Your task to perform on an android device: turn notification dots off Image 0: 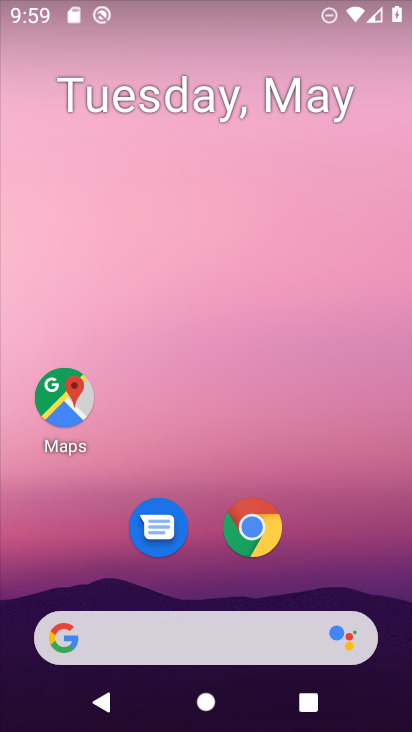
Step 0: drag from (321, 559) to (239, 150)
Your task to perform on an android device: turn notification dots off Image 1: 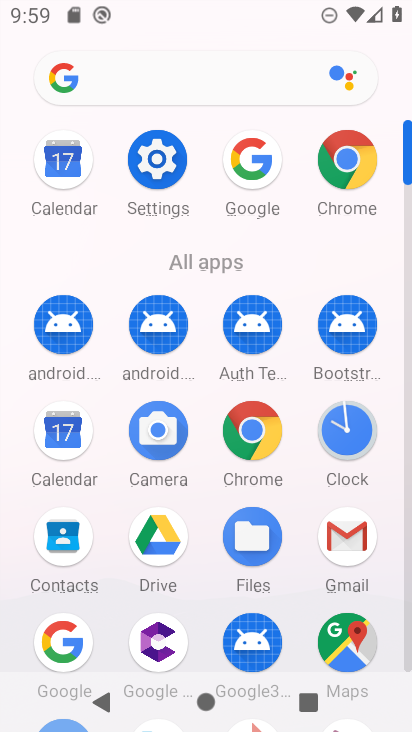
Step 1: click (156, 159)
Your task to perform on an android device: turn notification dots off Image 2: 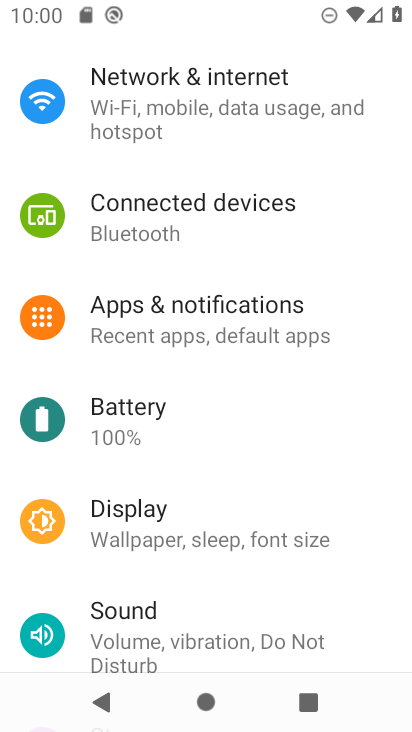
Step 2: click (191, 310)
Your task to perform on an android device: turn notification dots off Image 3: 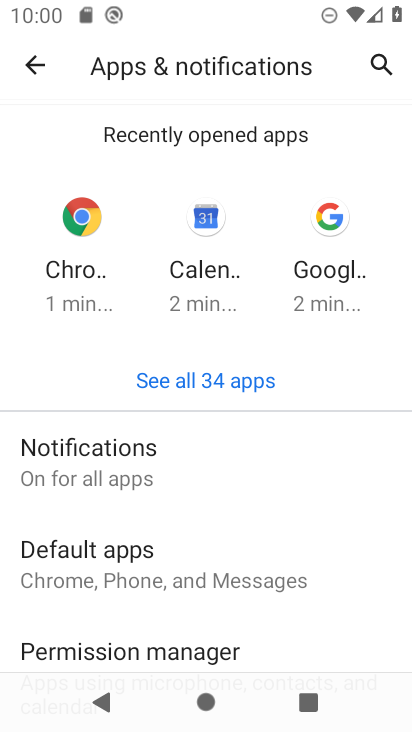
Step 3: click (91, 446)
Your task to perform on an android device: turn notification dots off Image 4: 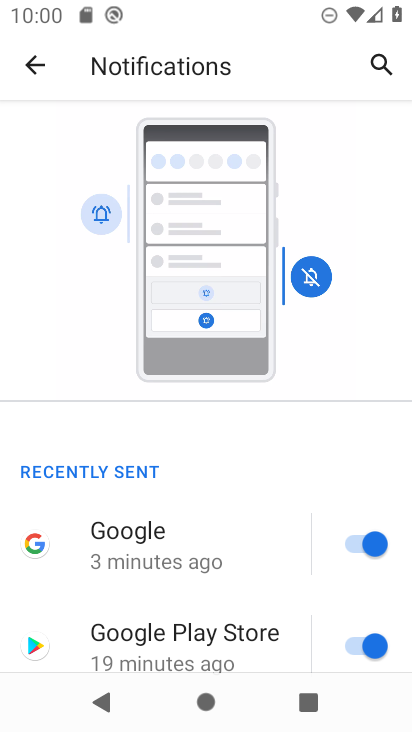
Step 4: drag from (229, 508) to (245, 410)
Your task to perform on an android device: turn notification dots off Image 5: 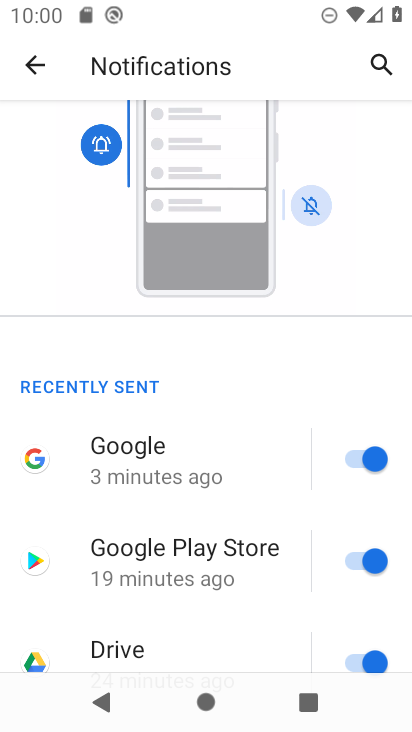
Step 5: drag from (170, 505) to (224, 432)
Your task to perform on an android device: turn notification dots off Image 6: 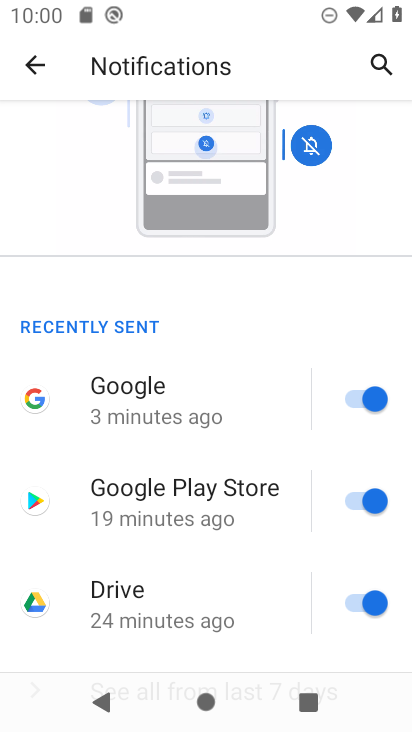
Step 6: drag from (134, 555) to (201, 471)
Your task to perform on an android device: turn notification dots off Image 7: 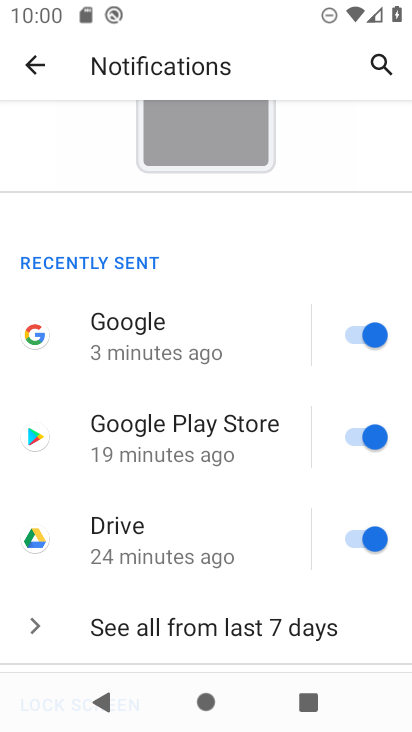
Step 7: drag from (116, 580) to (207, 469)
Your task to perform on an android device: turn notification dots off Image 8: 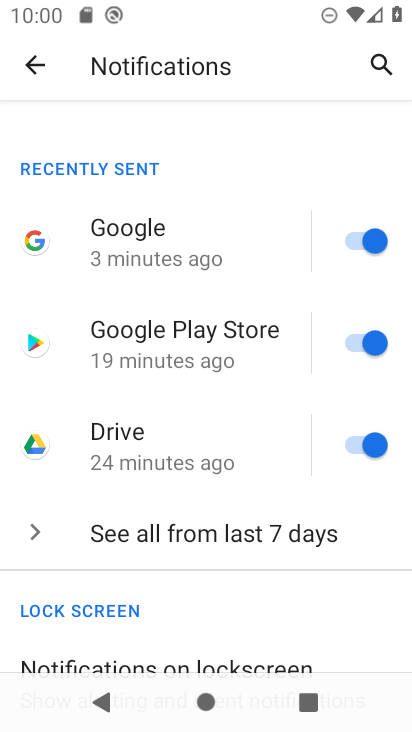
Step 8: drag from (172, 630) to (227, 494)
Your task to perform on an android device: turn notification dots off Image 9: 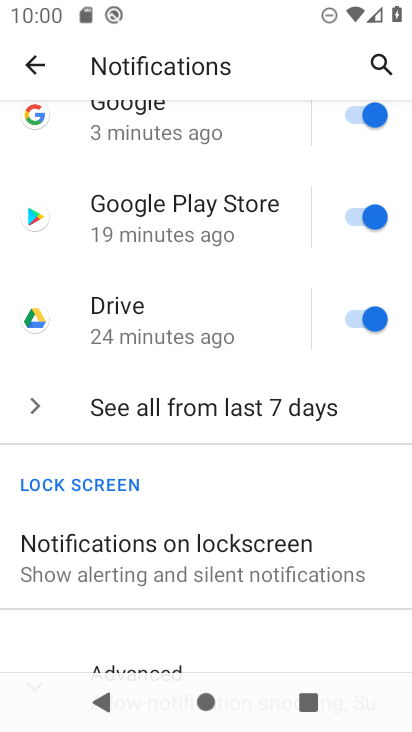
Step 9: drag from (132, 628) to (211, 494)
Your task to perform on an android device: turn notification dots off Image 10: 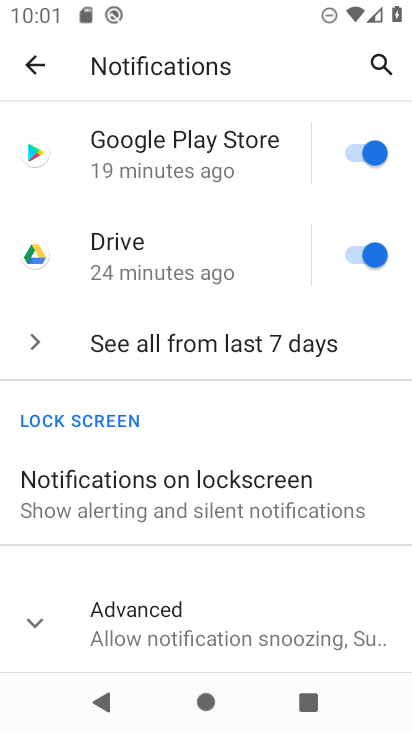
Step 10: click (171, 624)
Your task to perform on an android device: turn notification dots off Image 11: 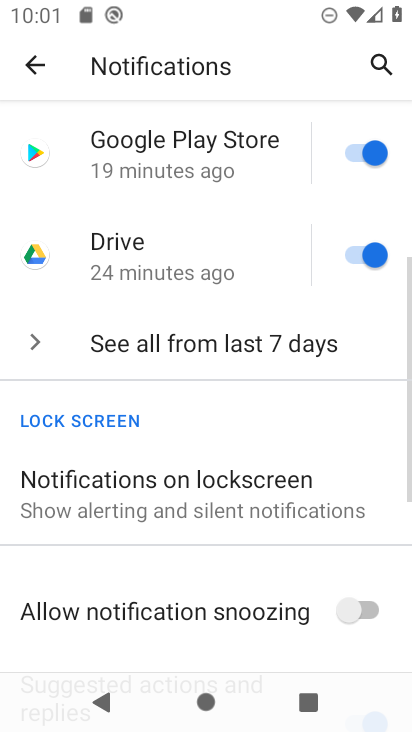
Step 11: task complete